Your task to perform on an android device: see tabs open on other devices in the chrome app Image 0: 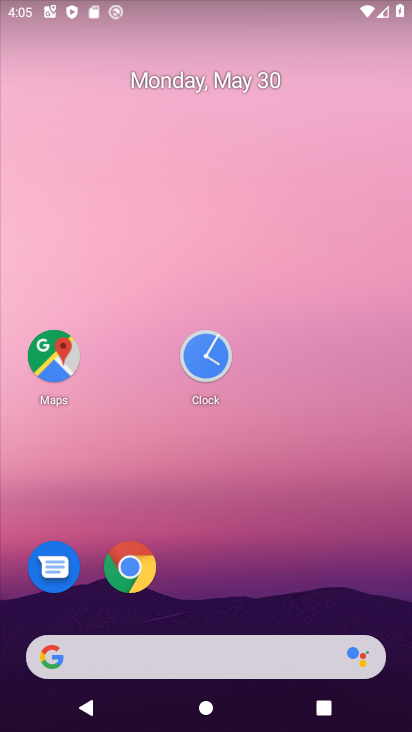
Step 0: drag from (163, 9) to (242, 2)
Your task to perform on an android device: see tabs open on other devices in the chrome app Image 1: 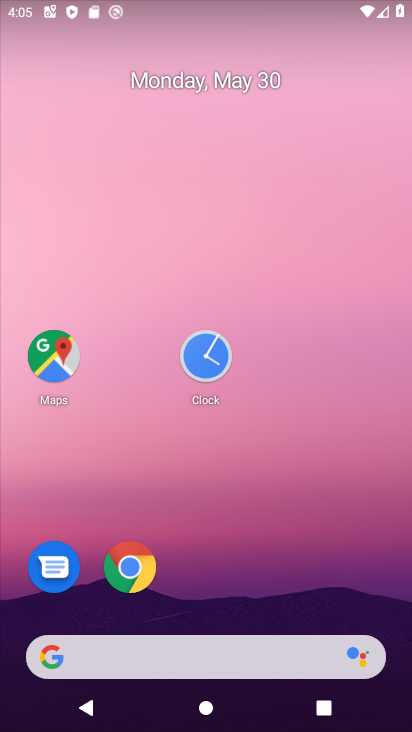
Step 1: click (231, 18)
Your task to perform on an android device: see tabs open on other devices in the chrome app Image 2: 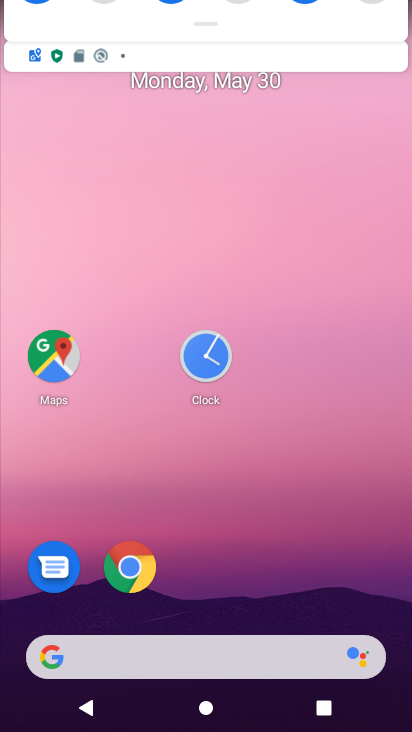
Step 2: drag from (204, 5) to (400, 350)
Your task to perform on an android device: see tabs open on other devices in the chrome app Image 3: 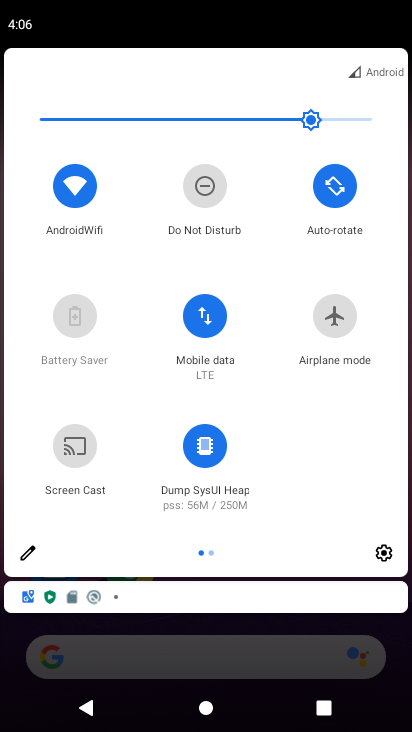
Step 3: press back button
Your task to perform on an android device: see tabs open on other devices in the chrome app Image 4: 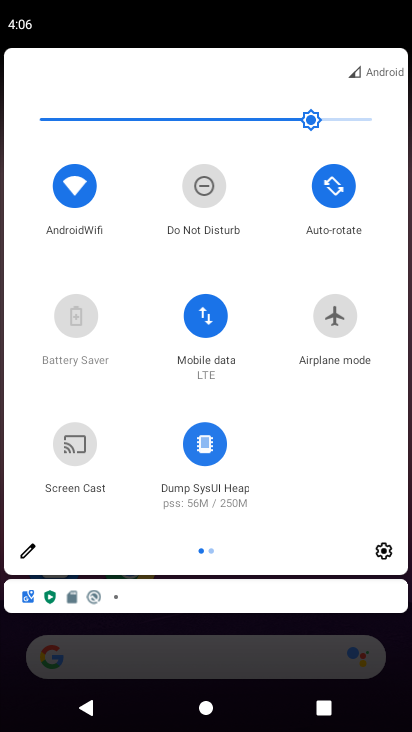
Step 4: press back button
Your task to perform on an android device: see tabs open on other devices in the chrome app Image 5: 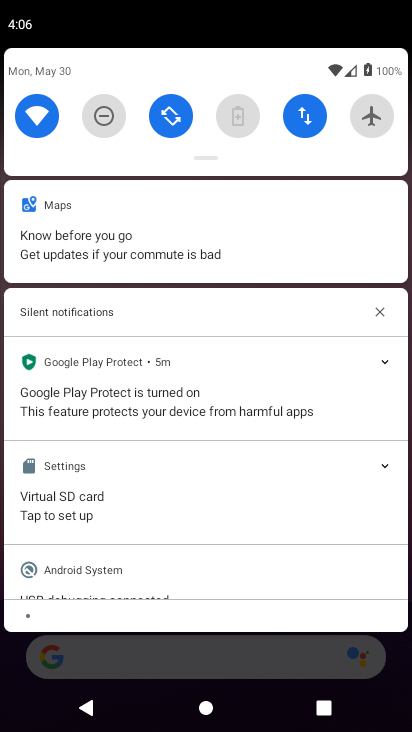
Step 5: press back button
Your task to perform on an android device: see tabs open on other devices in the chrome app Image 6: 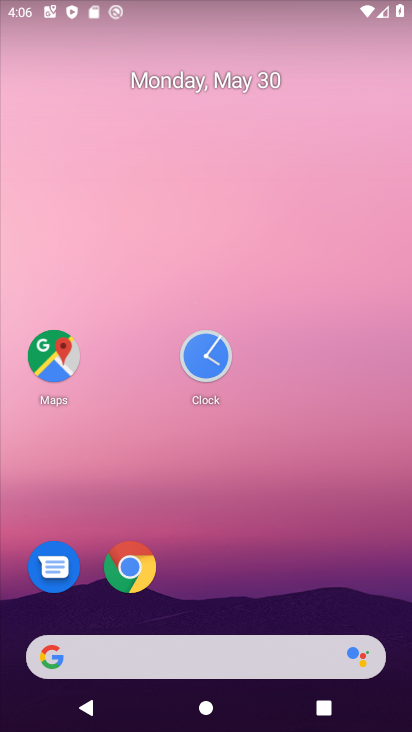
Step 6: drag from (238, 366) to (205, 150)
Your task to perform on an android device: see tabs open on other devices in the chrome app Image 7: 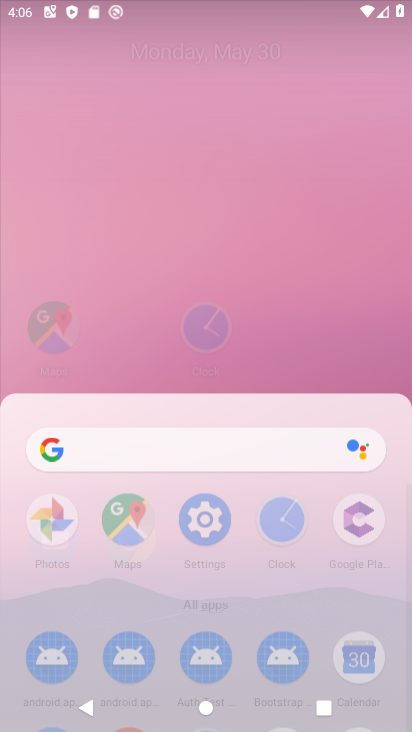
Step 7: drag from (236, 525) to (238, 25)
Your task to perform on an android device: see tabs open on other devices in the chrome app Image 8: 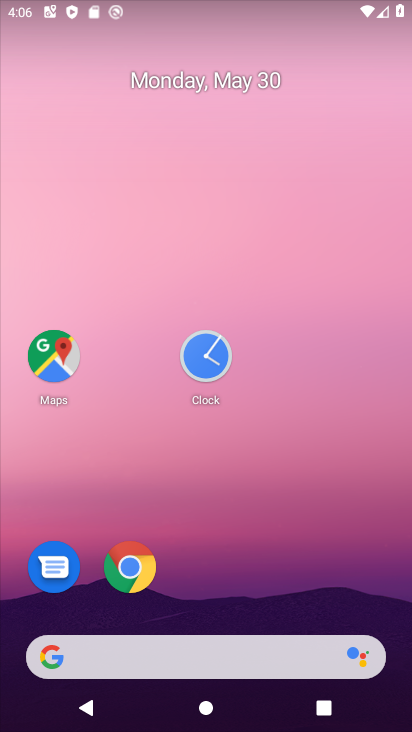
Step 8: drag from (210, 525) to (183, 68)
Your task to perform on an android device: see tabs open on other devices in the chrome app Image 9: 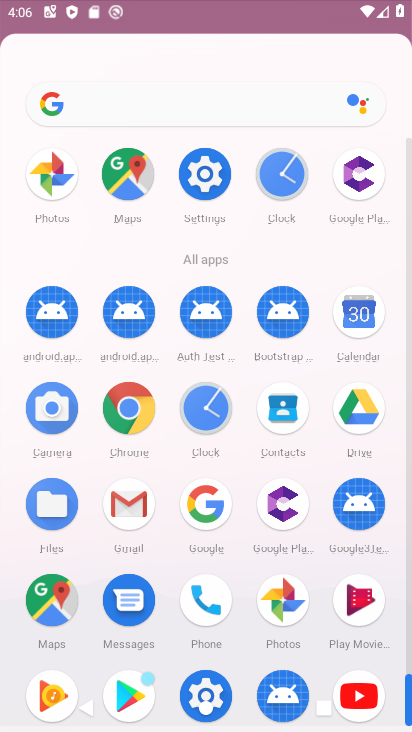
Step 9: drag from (227, 629) to (153, 84)
Your task to perform on an android device: see tabs open on other devices in the chrome app Image 10: 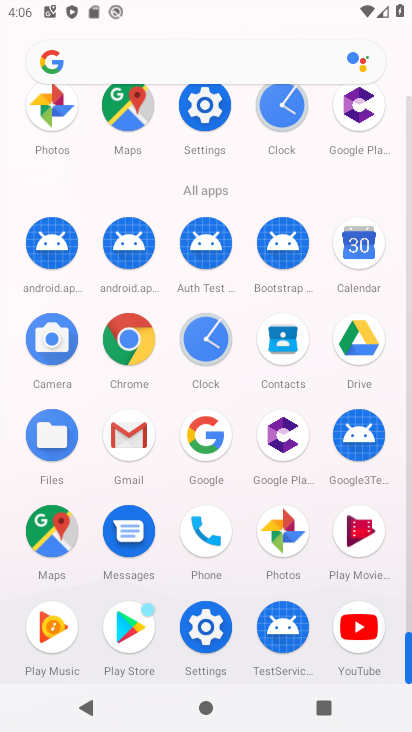
Step 10: drag from (228, 322) to (242, 41)
Your task to perform on an android device: see tabs open on other devices in the chrome app Image 11: 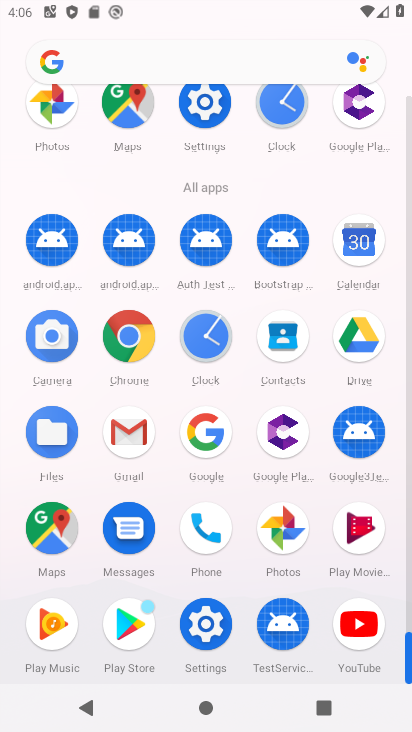
Step 11: click (124, 332)
Your task to perform on an android device: see tabs open on other devices in the chrome app Image 12: 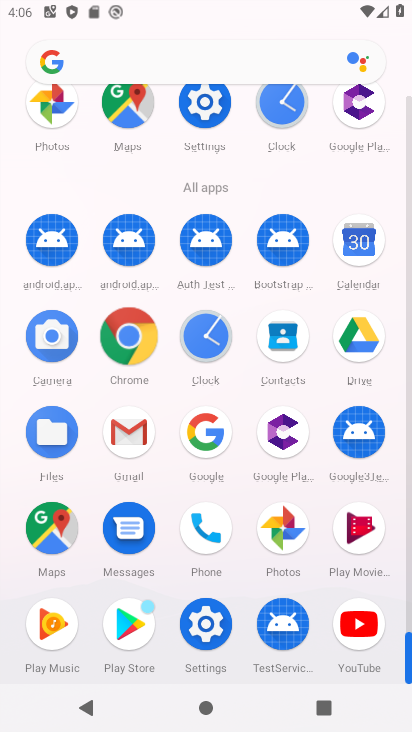
Step 12: click (123, 331)
Your task to perform on an android device: see tabs open on other devices in the chrome app Image 13: 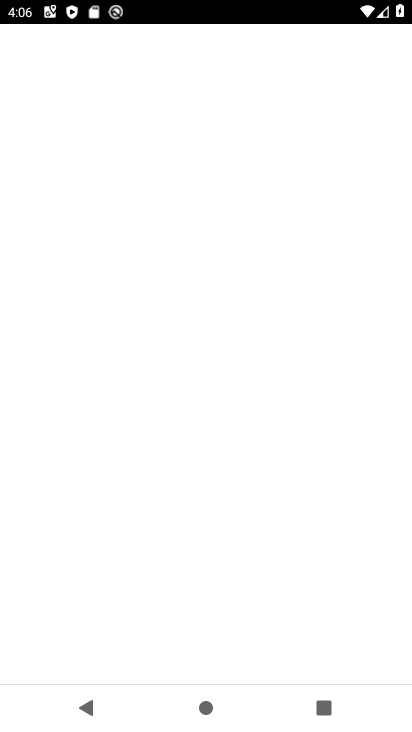
Step 13: click (118, 332)
Your task to perform on an android device: see tabs open on other devices in the chrome app Image 14: 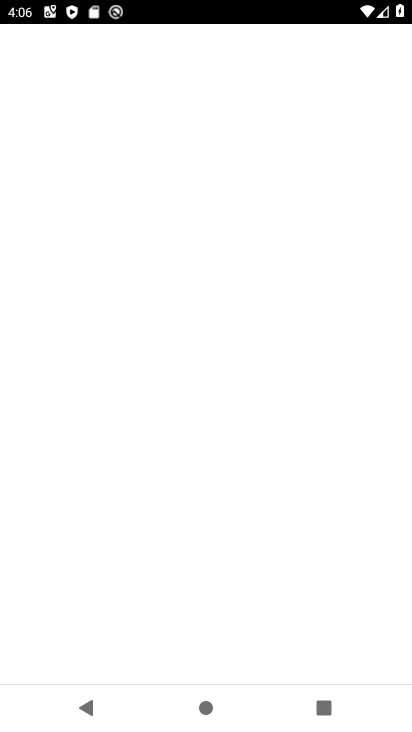
Step 14: click (117, 332)
Your task to perform on an android device: see tabs open on other devices in the chrome app Image 15: 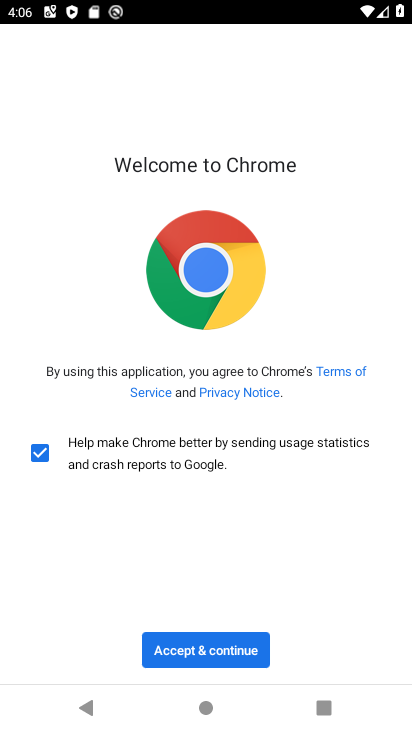
Step 15: click (206, 658)
Your task to perform on an android device: see tabs open on other devices in the chrome app Image 16: 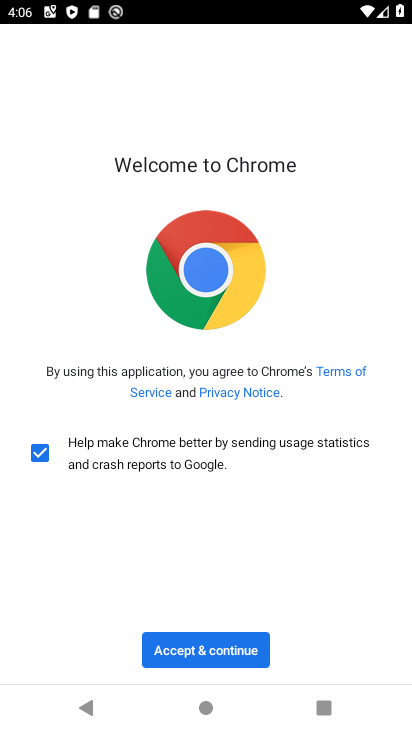
Step 16: click (206, 656)
Your task to perform on an android device: see tabs open on other devices in the chrome app Image 17: 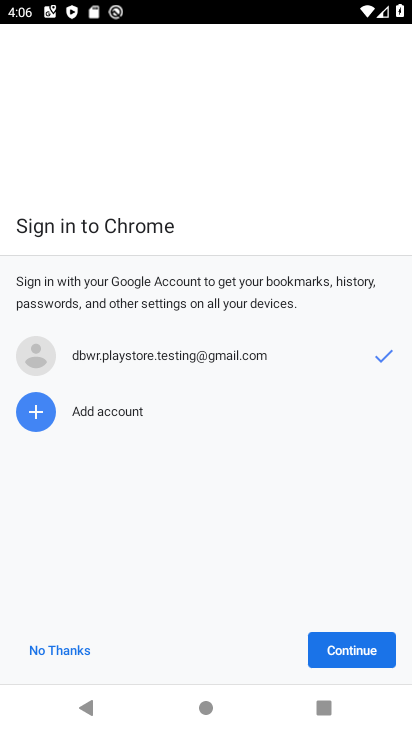
Step 17: click (206, 656)
Your task to perform on an android device: see tabs open on other devices in the chrome app Image 18: 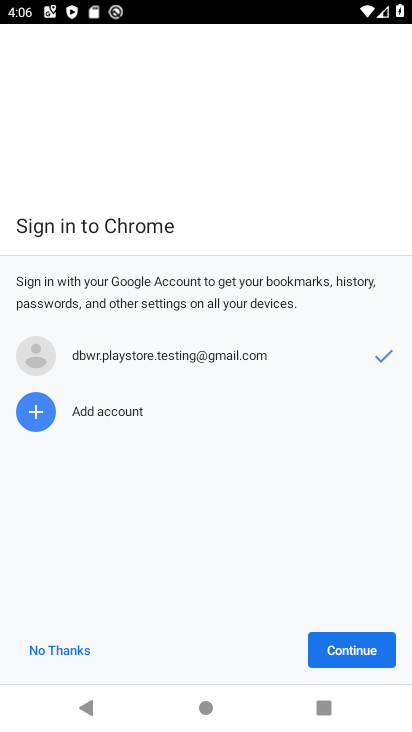
Step 18: click (206, 656)
Your task to perform on an android device: see tabs open on other devices in the chrome app Image 19: 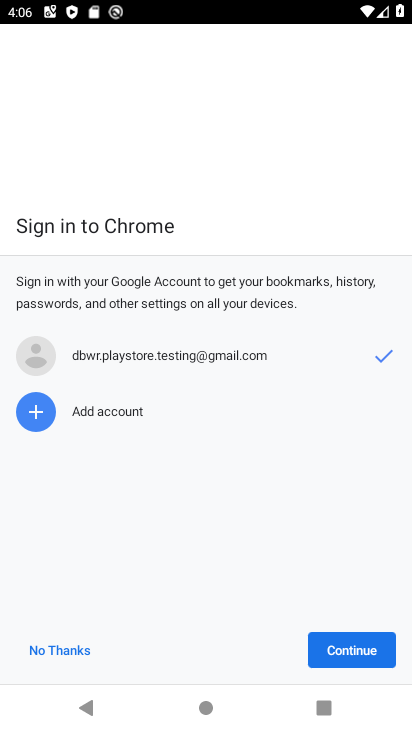
Step 19: click (208, 654)
Your task to perform on an android device: see tabs open on other devices in the chrome app Image 20: 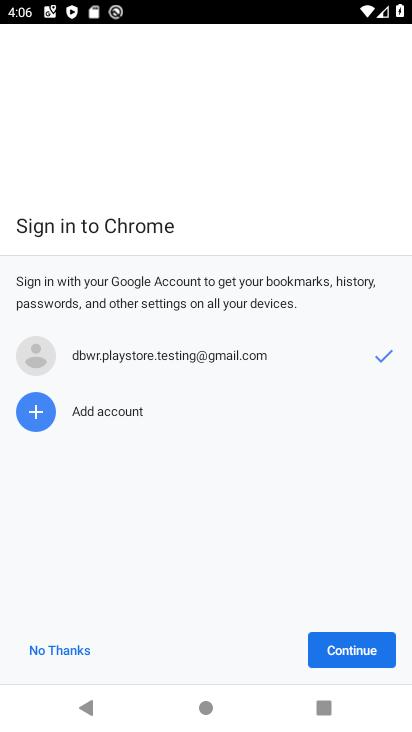
Step 20: click (366, 655)
Your task to perform on an android device: see tabs open on other devices in the chrome app Image 21: 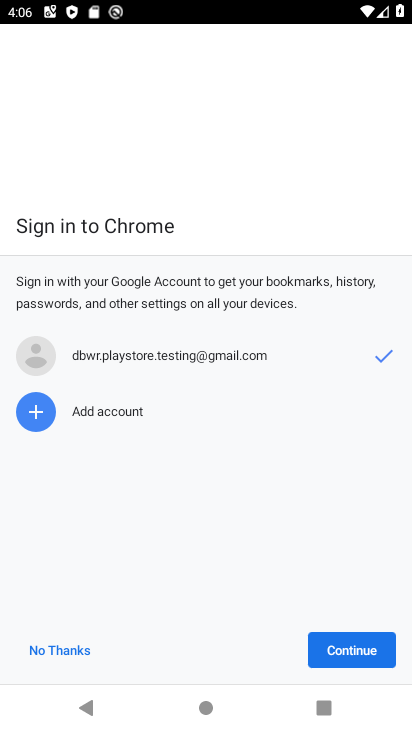
Step 21: click (367, 656)
Your task to perform on an android device: see tabs open on other devices in the chrome app Image 22: 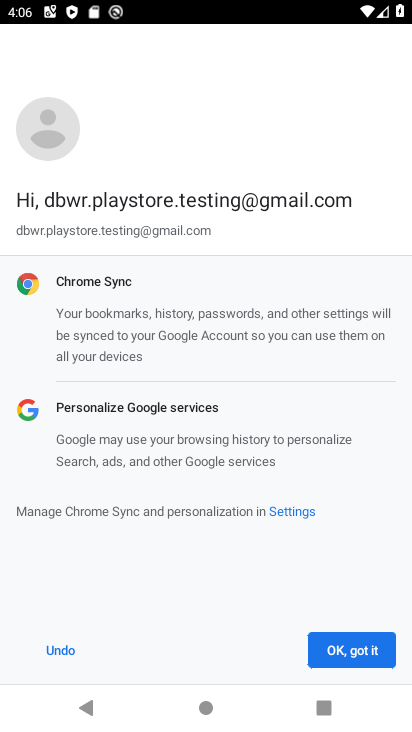
Step 22: click (360, 663)
Your task to perform on an android device: see tabs open on other devices in the chrome app Image 23: 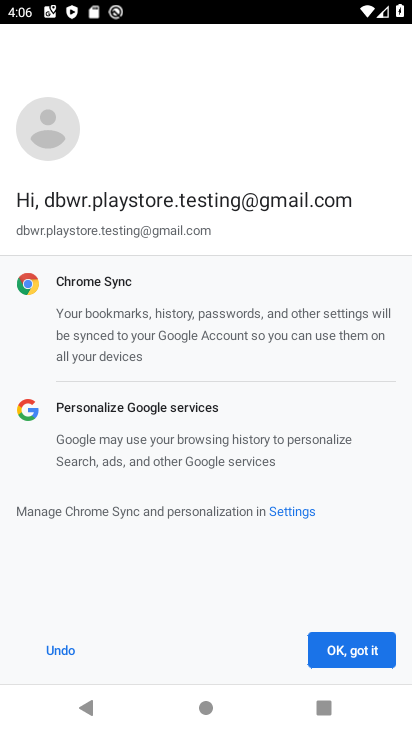
Step 23: click (357, 665)
Your task to perform on an android device: see tabs open on other devices in the chrome app Image 24: 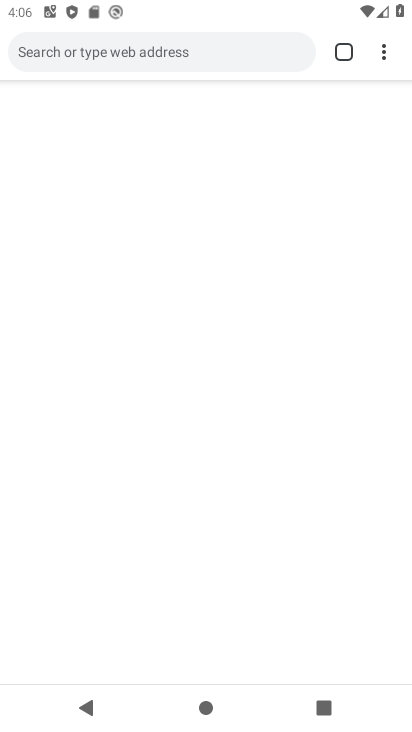
Step 24: click (350, 665)
Your task to perform on an android device: see tabs open on other devices in the chrome app Image 25: 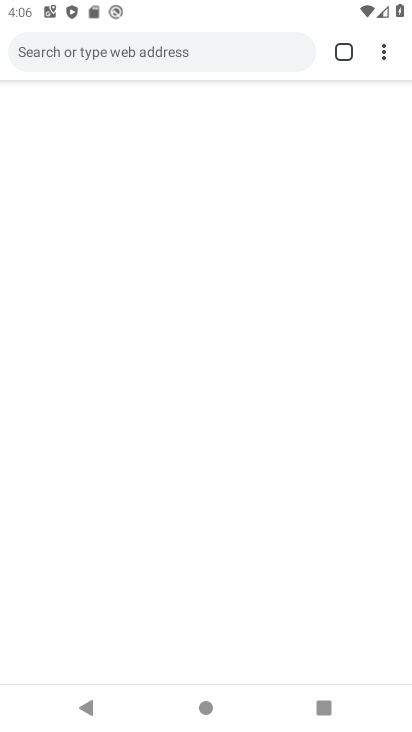
Step 25: click (378, 55)
Your task to perform on an android device: see tabs open on other devices in the chrome app Image 26: 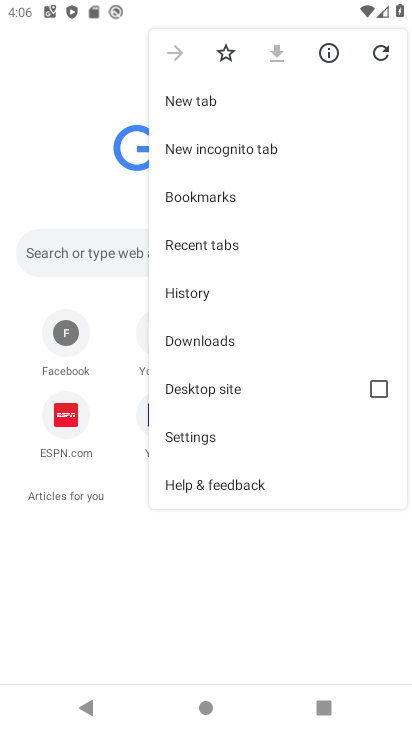
Step 26: click (202, 244)
Your task to perform on an android device: see tabs open on other devices in the chrome app Image 27: 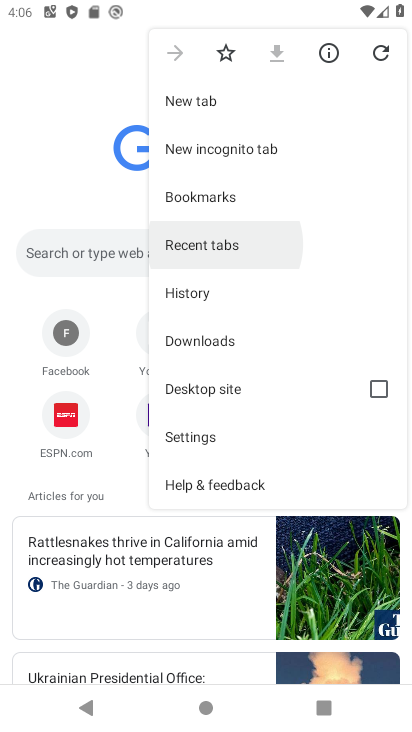
Step 27: click (200, 242)
Your task to perform on an android device: see tabs open on other devices in the chrome app Image 28: 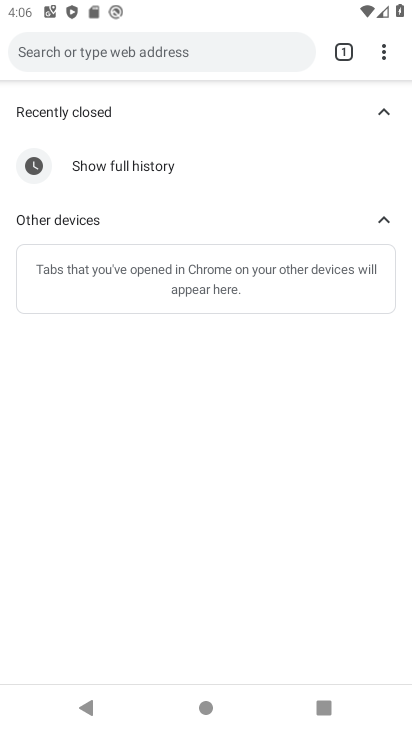
Step 28: click (200, 242)
Your task to perform on an android device: see tabs open on other devices in the chrome app Image 29: 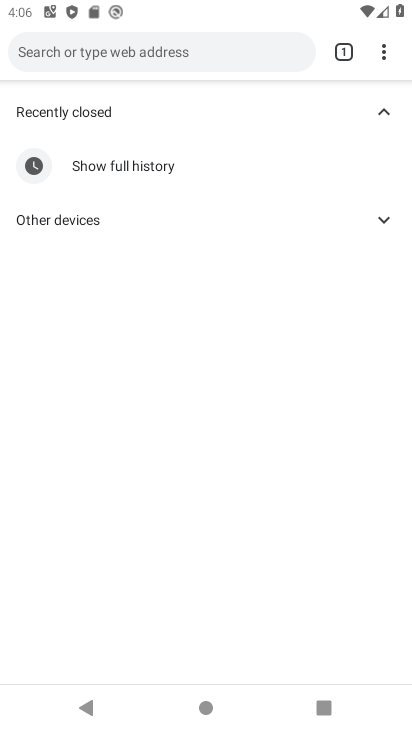
Step 29: task complete